Your task to perform on an android device: turn on javascript in the chrome app Image 0: 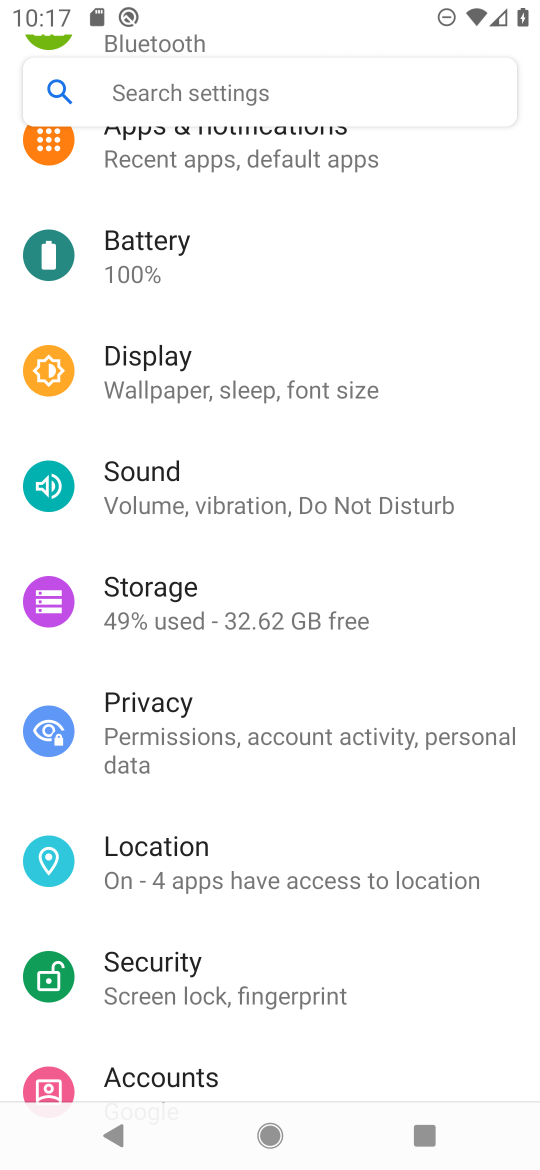
Step 0: press home button
Your task to perform on an android device: turn on javascript in the chrome app Image 1: 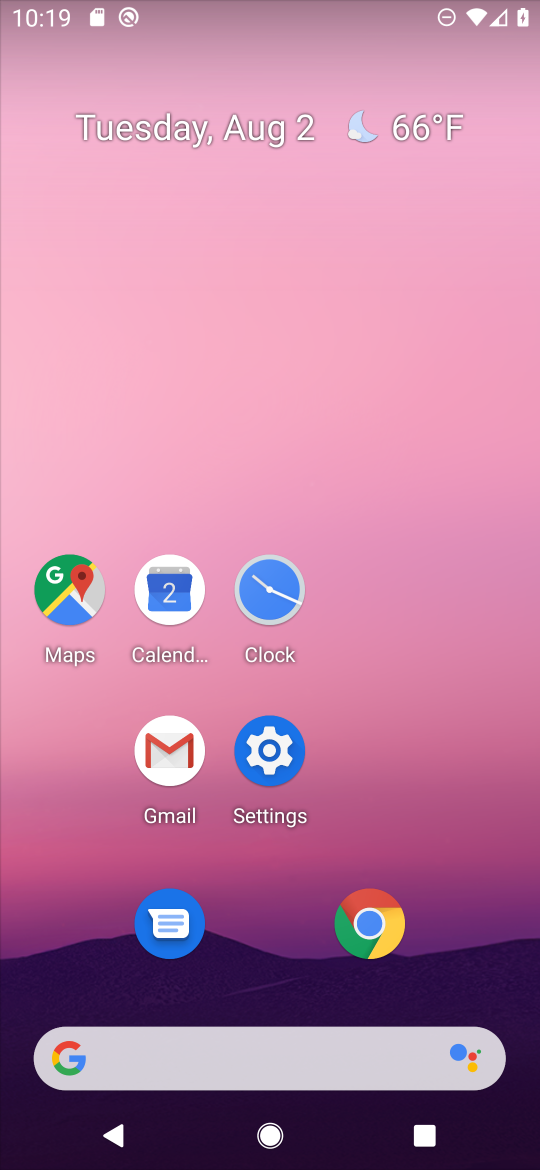
Step 1: click (367, 918)
Your task to perform on an android device: turn on javascript in the chrome app Image 2: 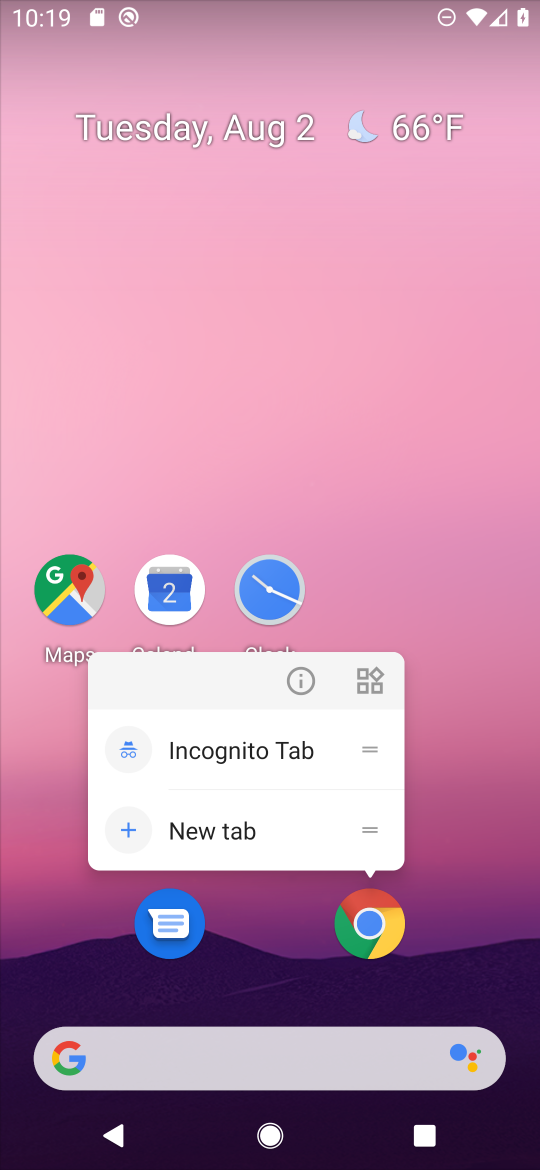
Step 2: click (364, 918)
Your task to perform on an android device: turn on javascript in the chrome app Image 3: 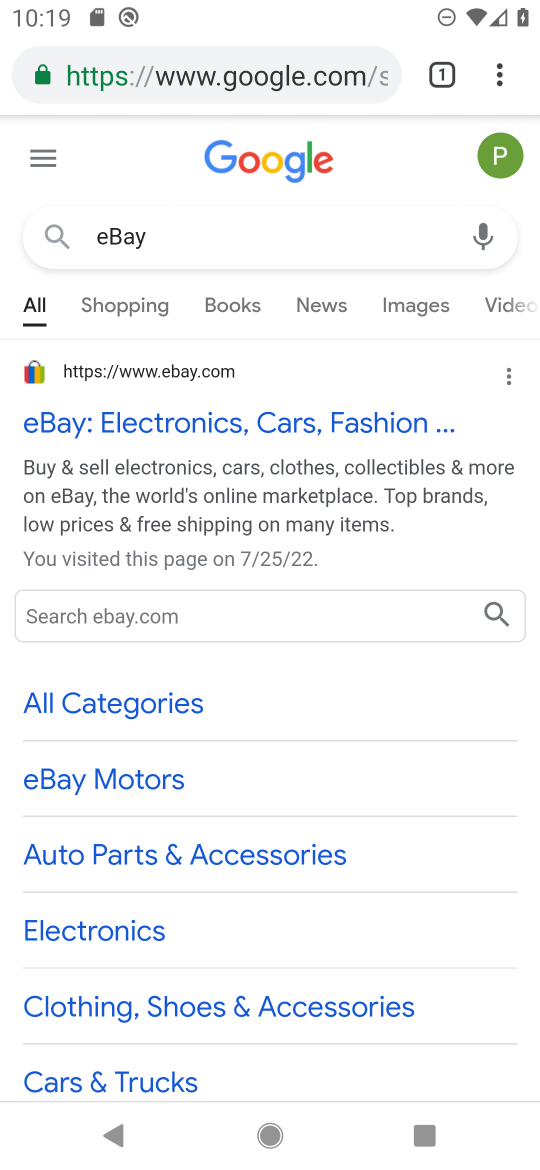
Step 3: click (496, 76)
Your task to perform on an android device: turn on javascript in the chrome app Image 4: 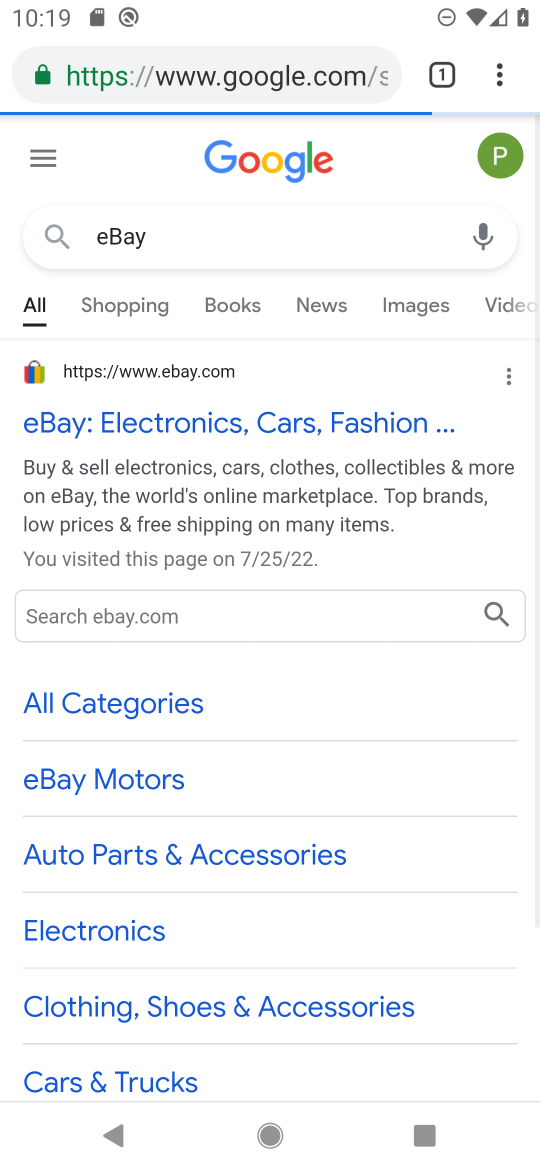
Step 4: click (496, 73)
Your task to perform on an android device: turn on javascript in the chrome app Image 5: 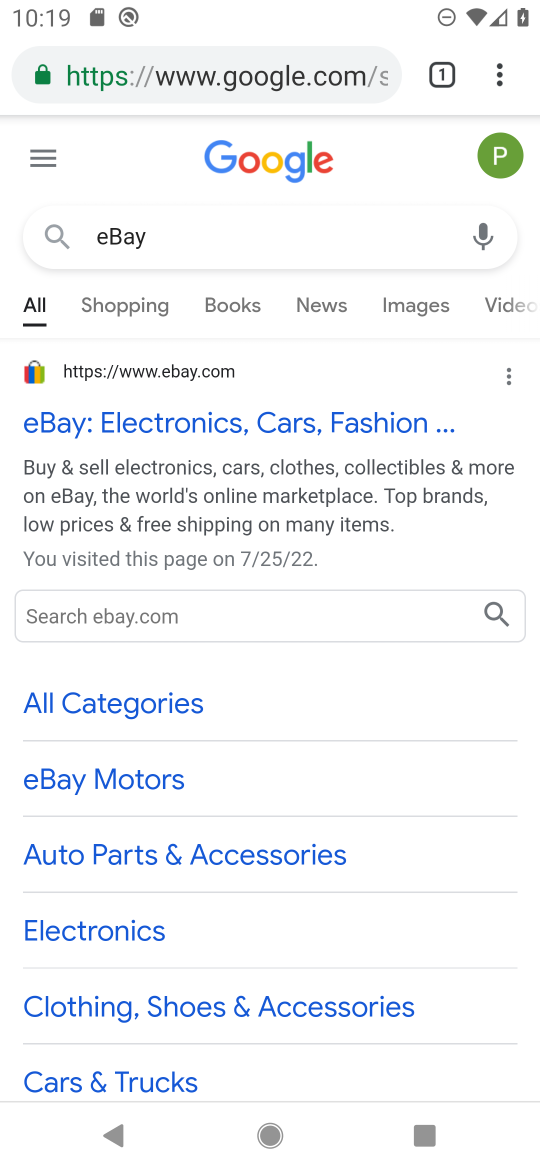
Step 5: click (496, 74)
Your task to perform on an android device: turn on javascript in the chrome app Image 6: 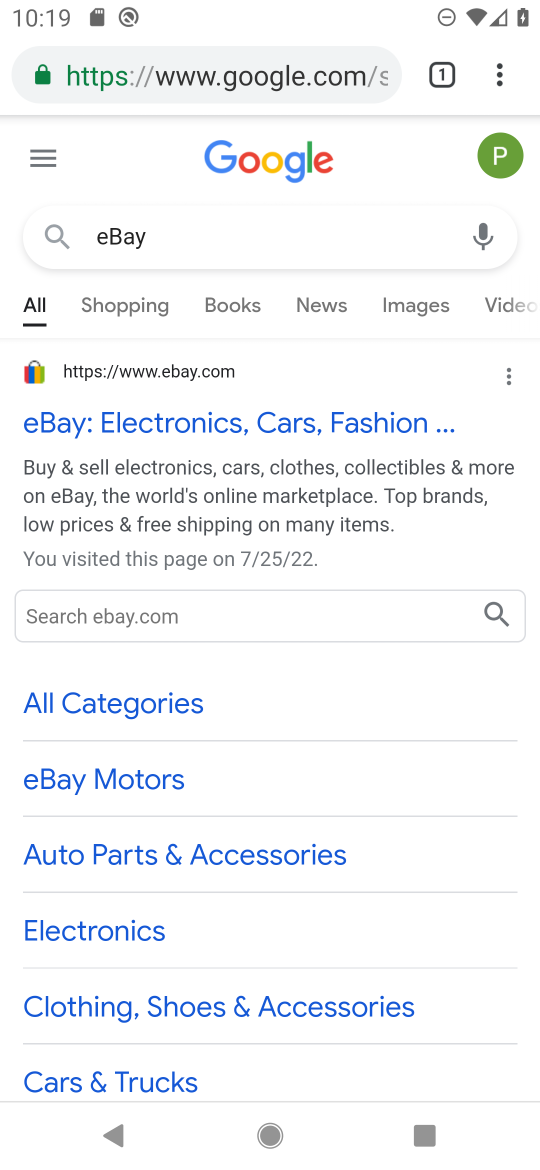
Step 6: click (493, 70)
Your task to perform on an android device: turn on javascript in the chrome app Image 7: 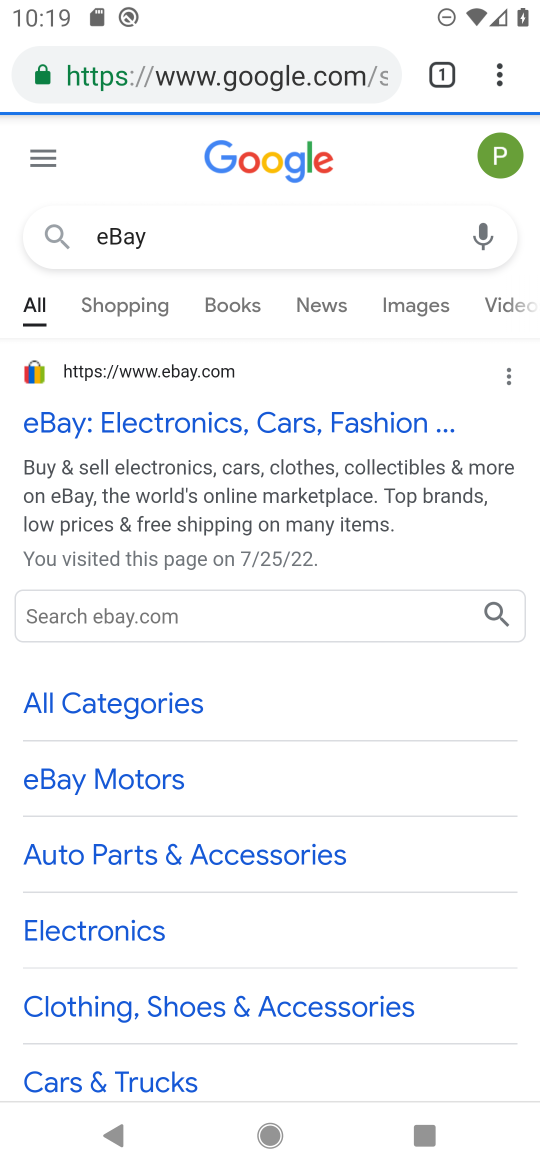
Step 7: click (493, 70)
Your task to perform on an android device: turn on javascript in the chrome app Image 8: 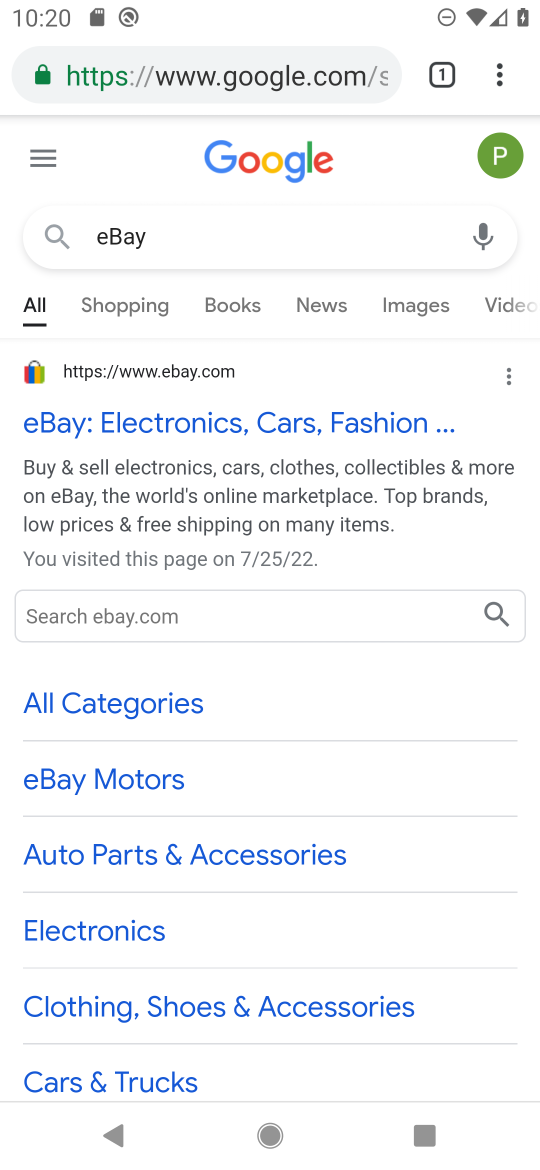
Step 8: click (496, 69)
Your task to perform on an android device: turn on javascript in the chrome app Image 9: 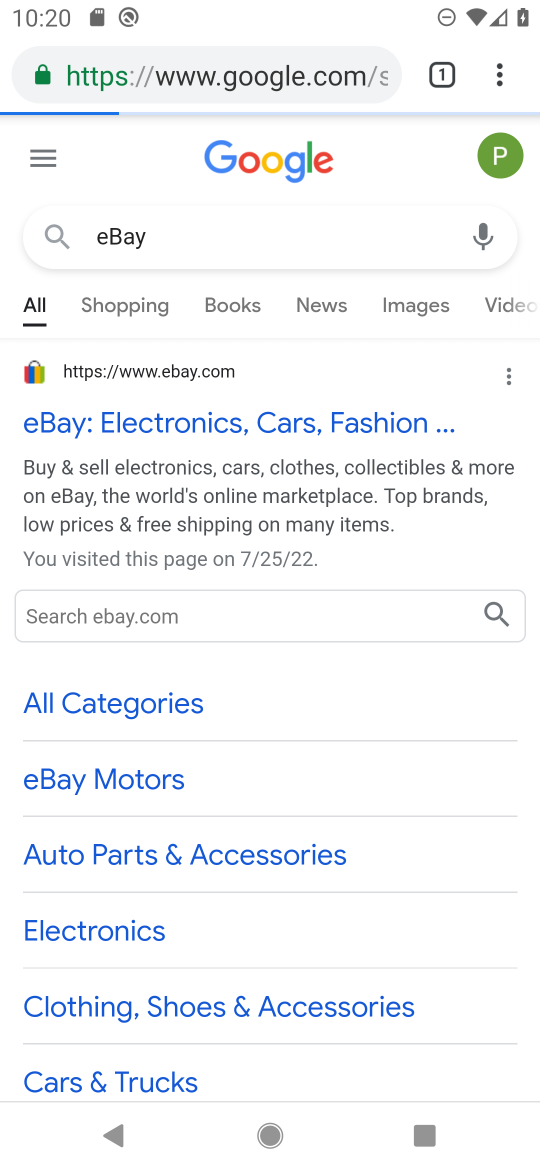
Step 9: click (496, 69)
Your task to perform on an android device: turn on javascript in the chrome app Image 10: 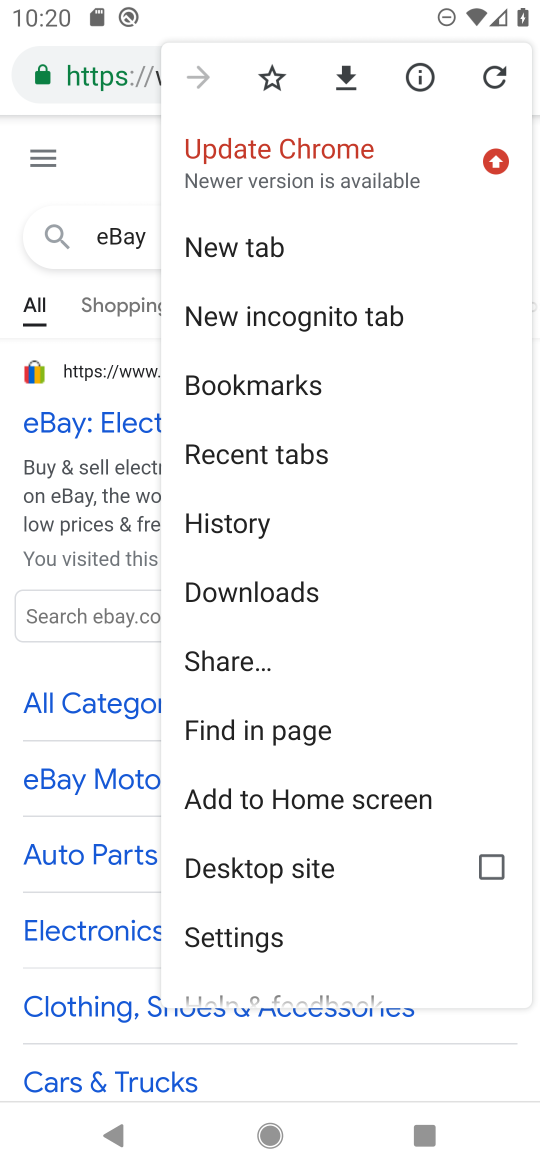
Step 10: click (216, 927)
Your task to perform on an android device: turn on javascript in the chrome app Image 11: 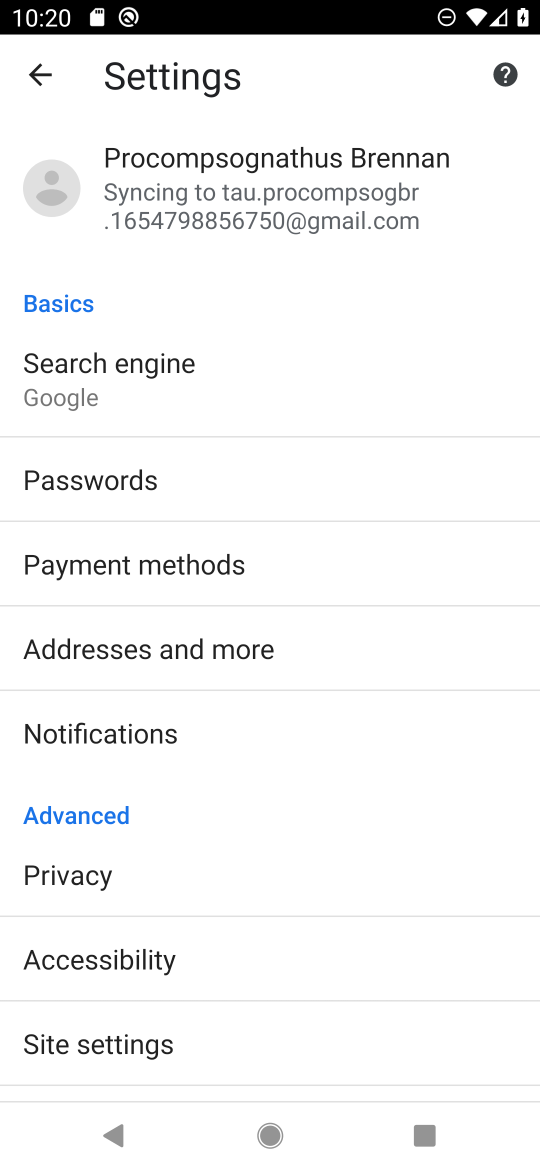
Step 11: drag from (353, 1040) to (372, 578)
Your task to perform on an android device: turn on javascript in the chrome app Image 12: 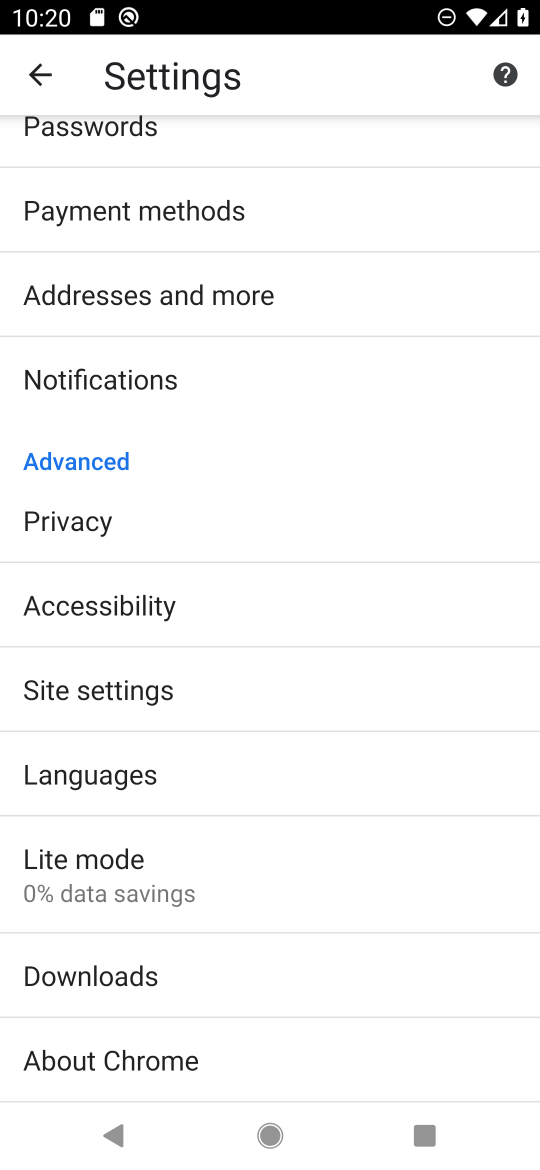
Step 12: click (87, 681)
Your task to perform on an android device: turn on javascript in the chrome app Image 13: 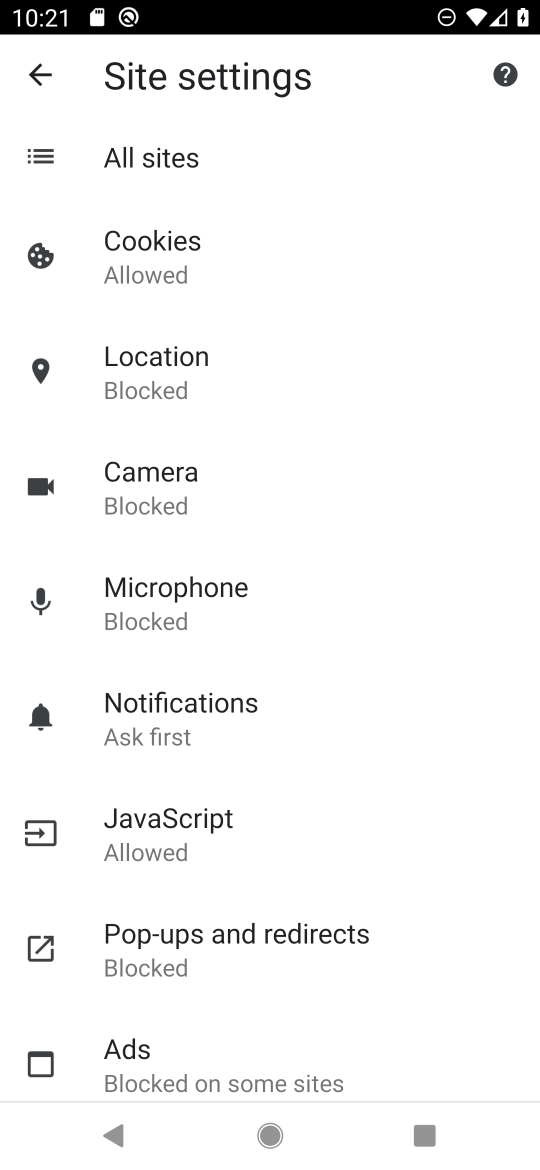
Step 13: click (193, 821)
Your task to perform on an android device: turn on javascript in the chrome app Image 14: 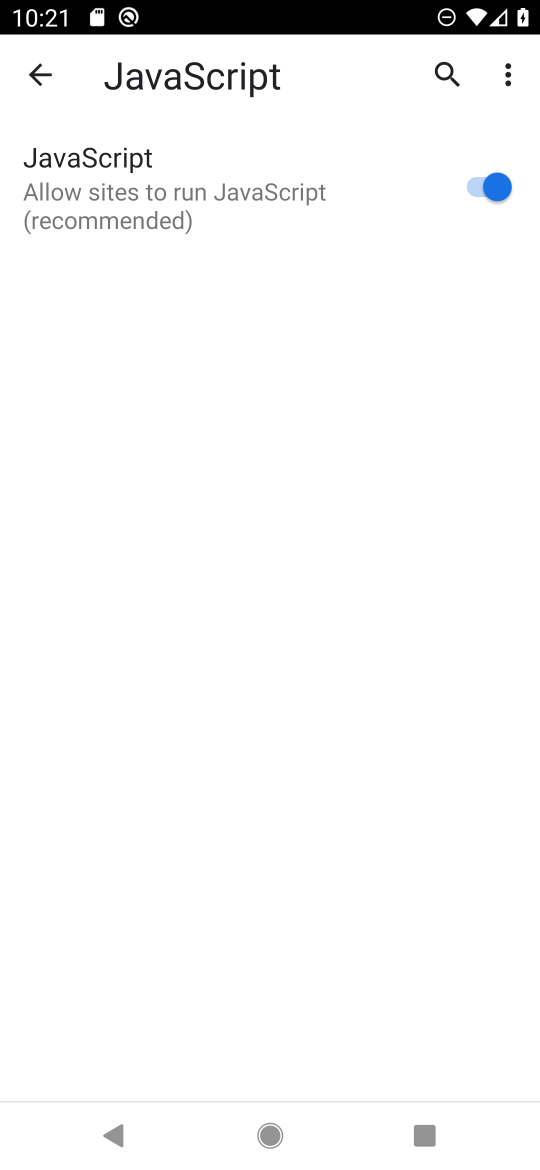
Step 14: task complete